Your task to perform on an android device: manage bookmarks in the chrome app Image 0: 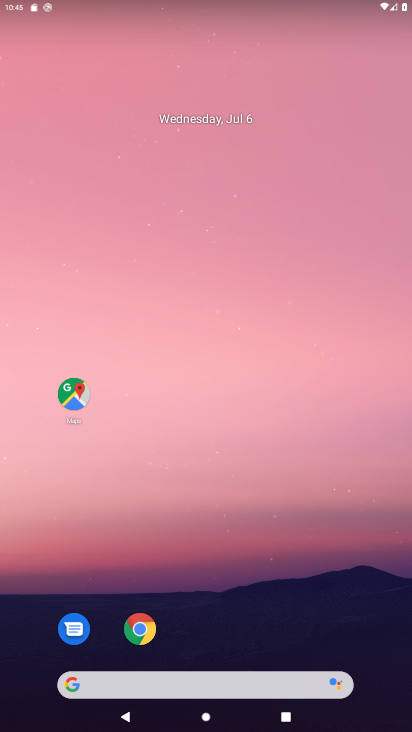
Step 0: click (139, 626)
Your task to perform on an android device: manage bookmarks in the chrome app Image 1: 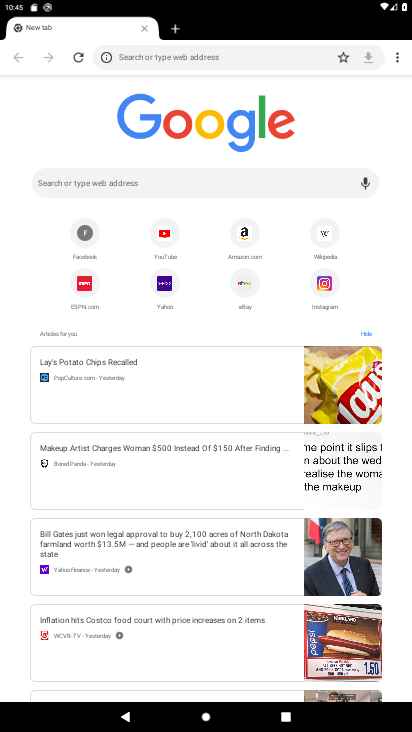
Step 1: click (400, 56)
Your task to perform on an android device: manage bookmarks in the chrome app Image 2: 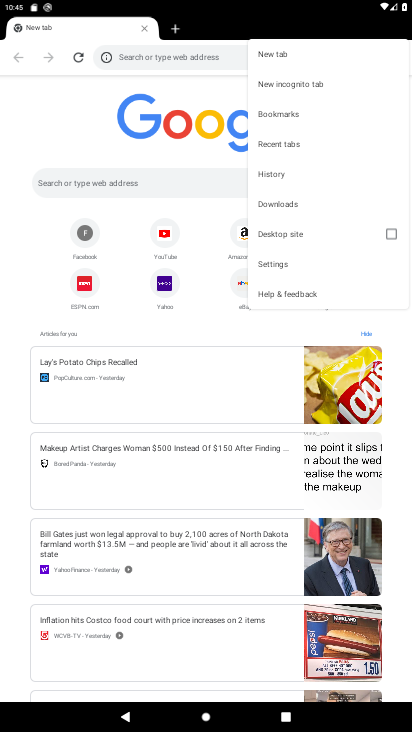
Step 2: click (302, 111)
Your task to perform on an android device: manage bookmarks in the chrome app Image 3: 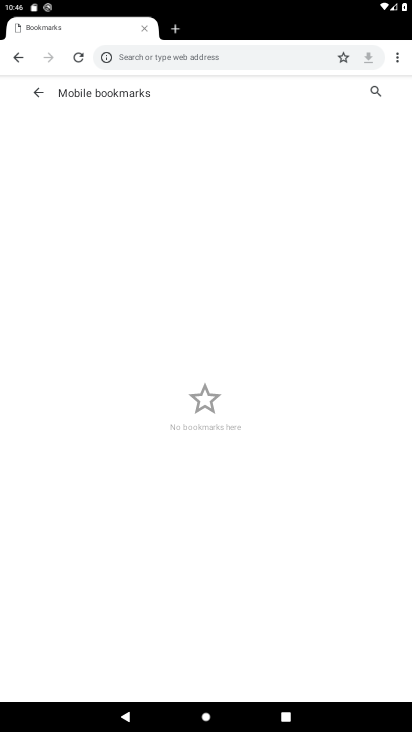
Step 3: task complete